Your task to perform on an android device: Go to Wikipedia Image 0: 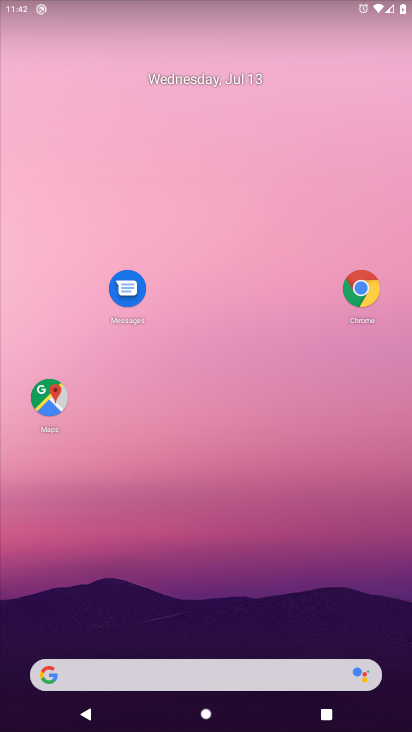
Step 0: click (95, 665)
Your task to perform on an android device: Go to Wikipedia Image 1: 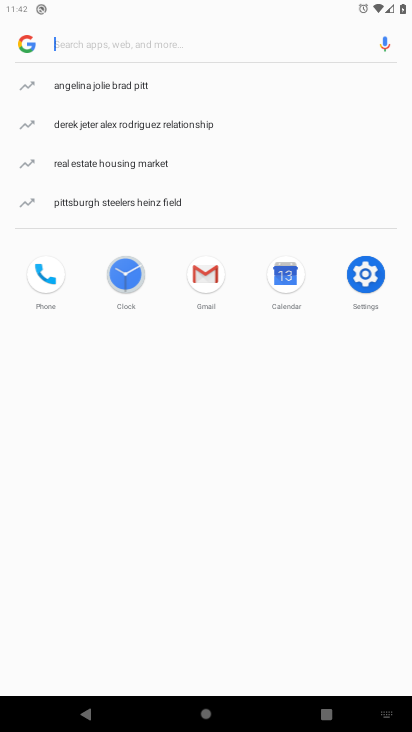
Step 1: type "Wikipedia"
Your task to perform on an android device: Go to Wikipedia Image 2: 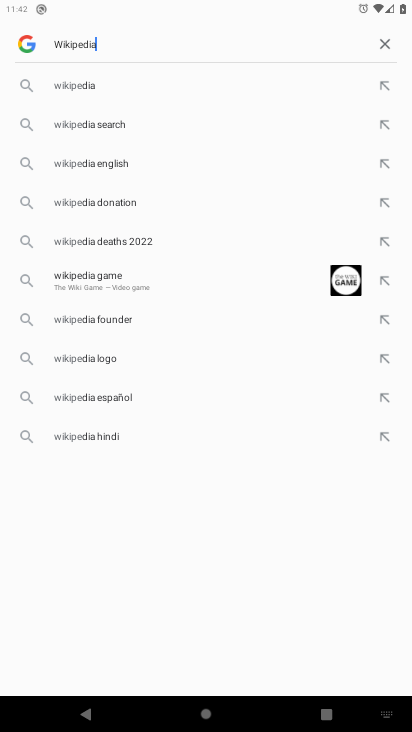
Step 2: type ""
Your task to perform on an android device: Go to Wikipedia Image 3: 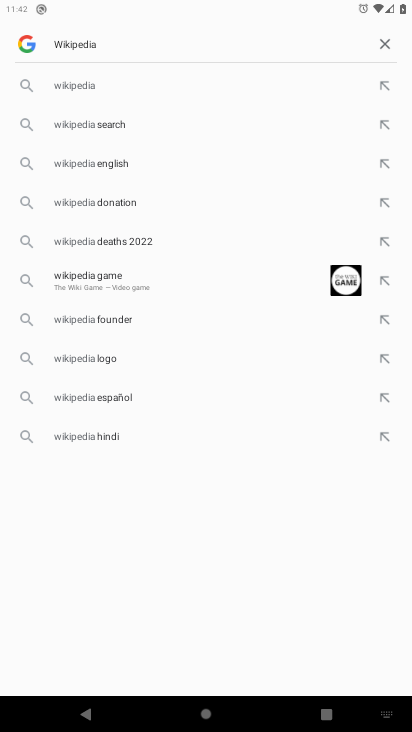
Step 3: click (81, 93)
Your task to perform on an android device: Go to Wikipedia Image 4: 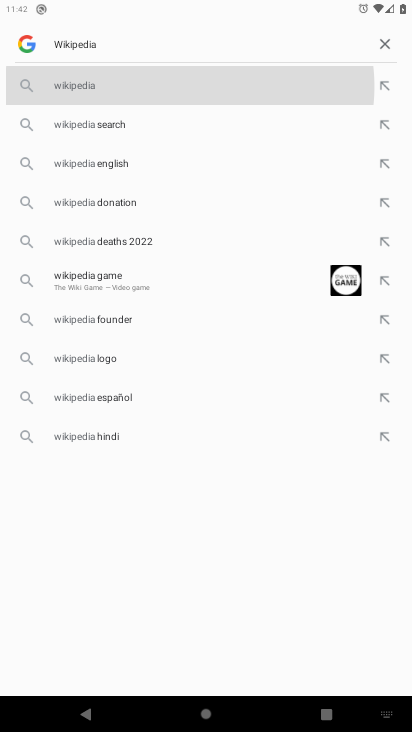
Step 4: click (78, 82)
Your task to perform on an android device: Go to Wikipedia Image 5: 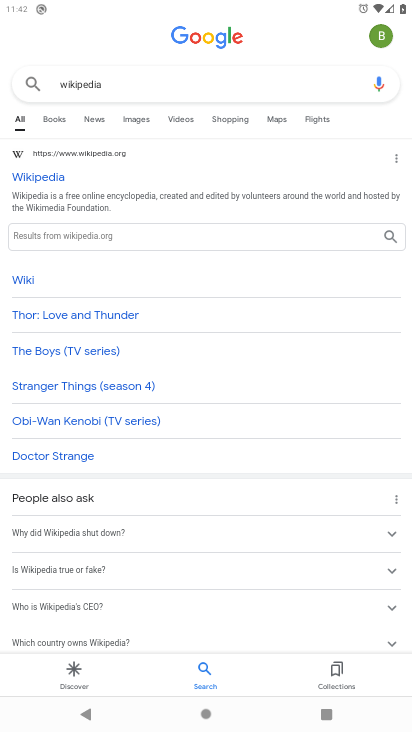
Step 5: task complete